Your task to perform on an android device: Open Chrome and go to the settings page Image 0: 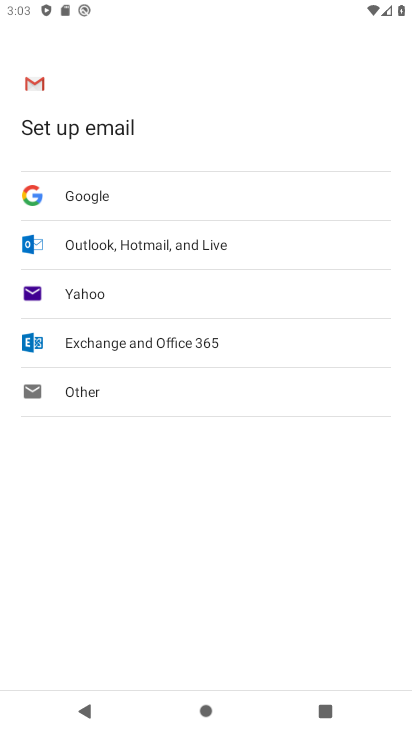
Step 0: press home button
Your task to perform on an android device: Open Chrome and go to the settings page Image 1: 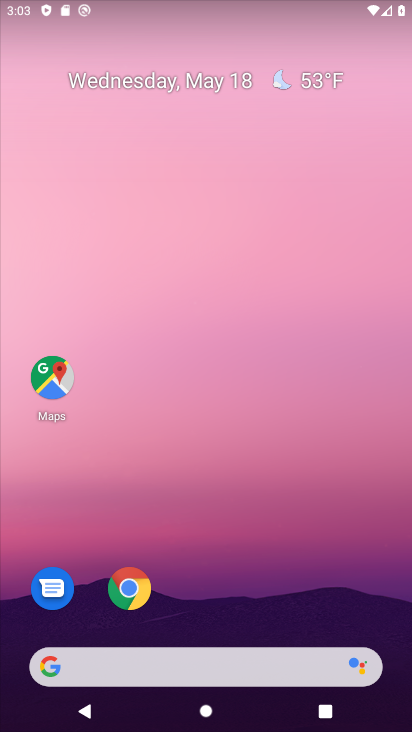
Step 1: click (132, 581)
Your task to perform on an android device: Open Chrome and go to the settings page Image 2: 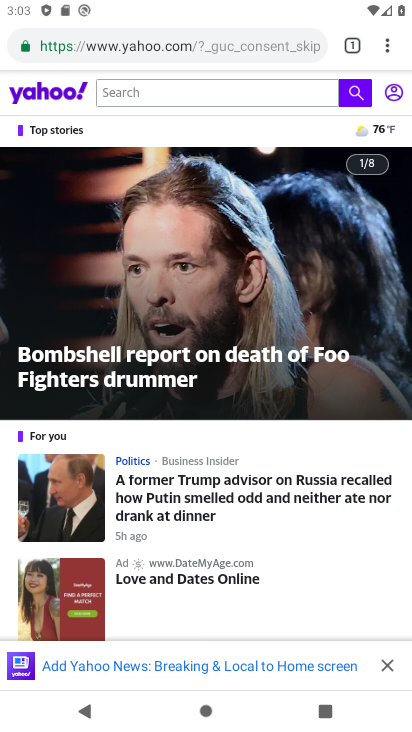
Step 2: task complete